Your task to perform on an android device: Go to Amazon Image 0: 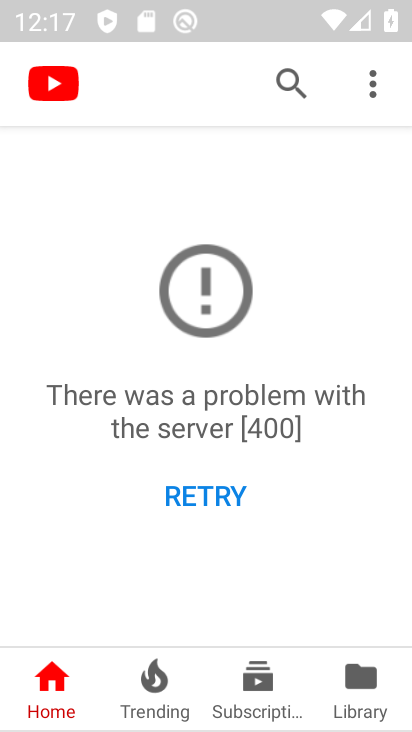
Step 0: press home button
Your task to perform on an android device: Go to Amazon Image 1: 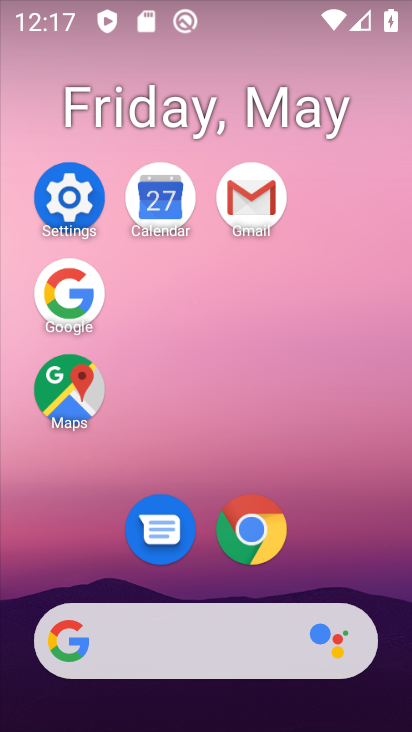
Step 1: click (233, 524)
Your task to perform on an android device: Go to Amazon Image 2: 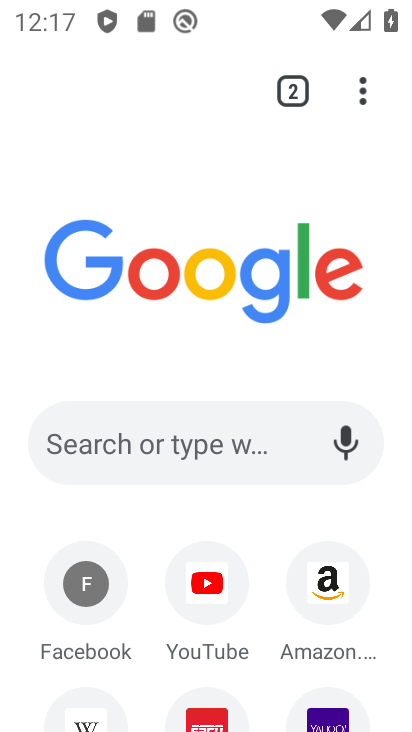
Step 2: click (292, 91)
Your task to perform on an android device: Go to Amazon Image 3: 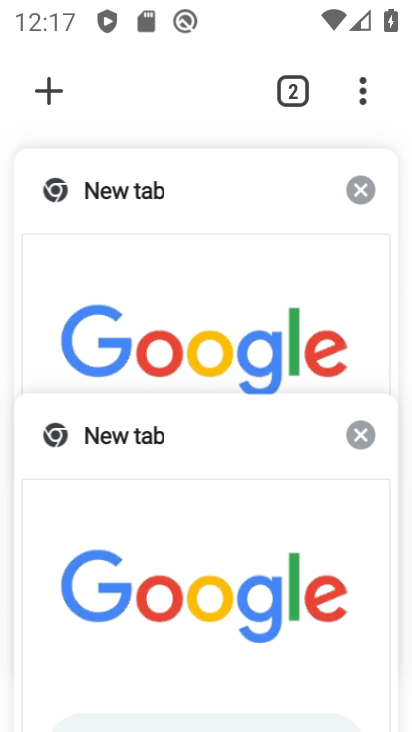
Step 3: click (43, 74)
Your task to perform on an android device: Go to Amazon Image 4: 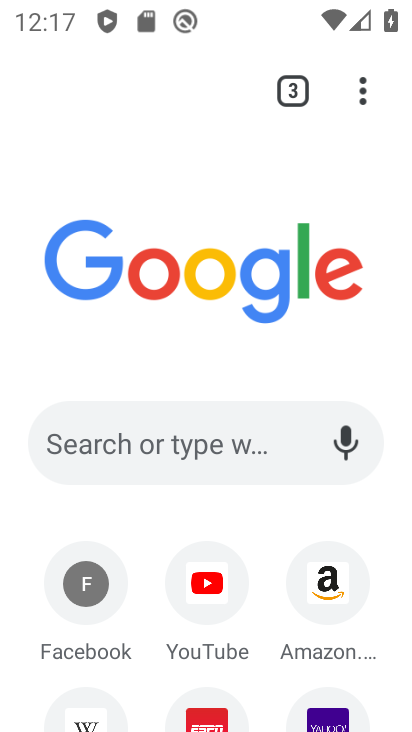
Step 4: click (326, 575)
Your task to perform on an android device: Go to Amazon Image 5: 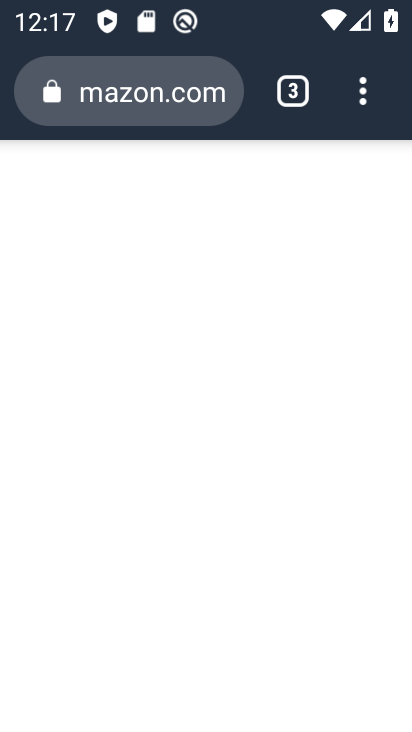
Step 5: task complete